Your task to perform on an android device: check android version Image 0: 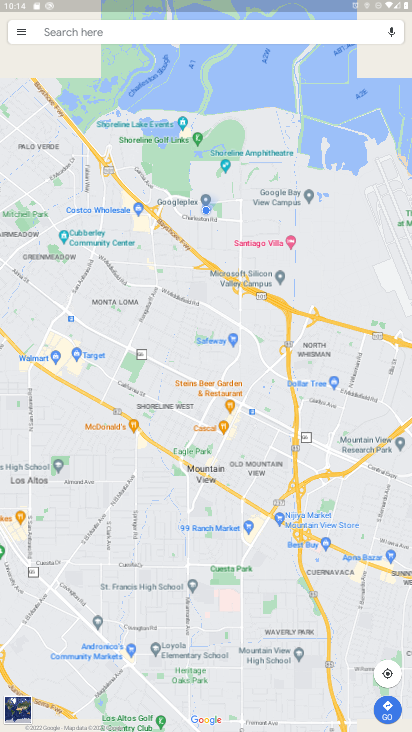
Step 0: press home button
Your task to perform on an android device: check android version Image 1: 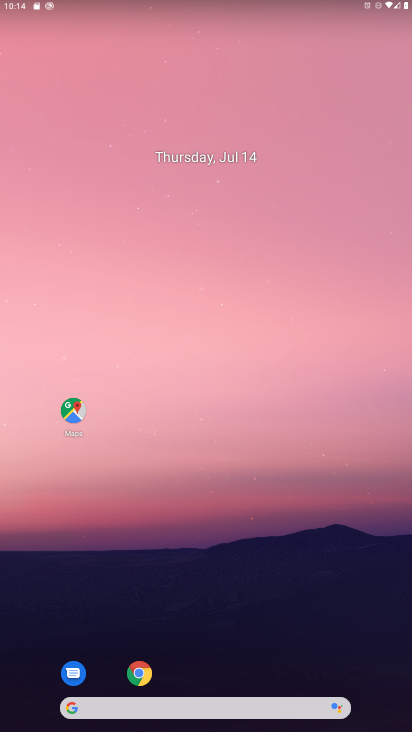
Step 1: drag from (239, 713) to (277, 249)
Your task to perform on an android device: check android version Image 2: 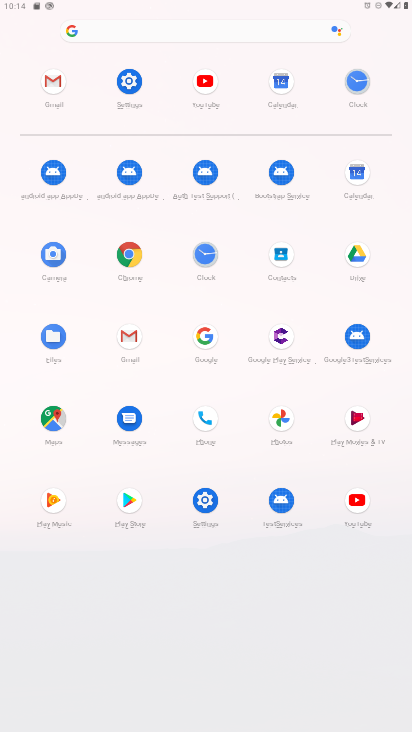
Step 2: click (206, 499)
Your task to perform on an android device: check android version Image 3: 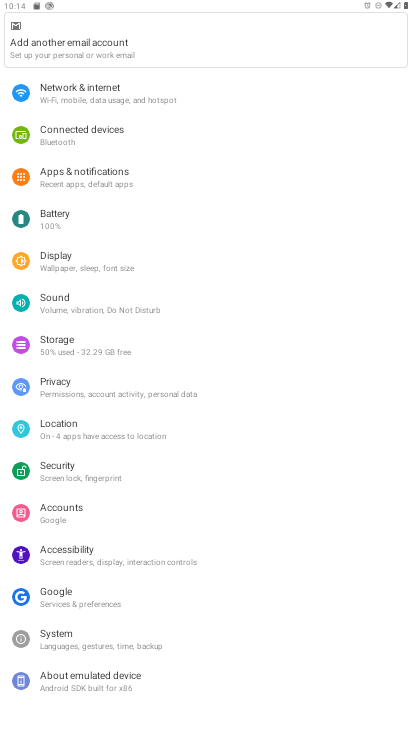
Step 3: drag from (79, 613) to (138, 506)
Your task to perform on an android device: check android version Image 4: 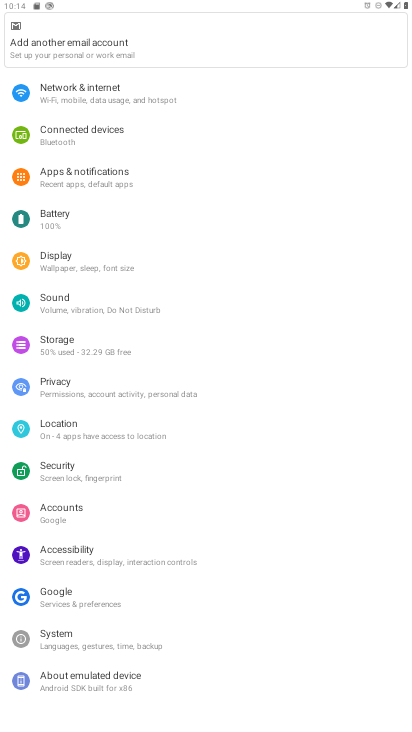
Step 4: click (94, 686)
Your task to perform on an android device: check android version Image 5: 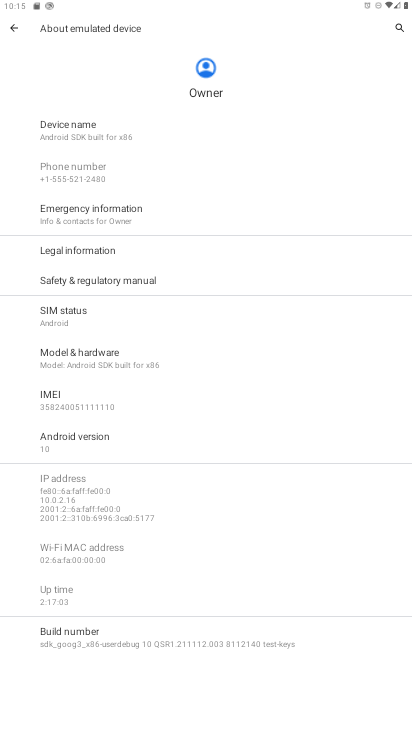
Step 5: click (92, 436)
Your task to perform on an android device: check android version Image 6: 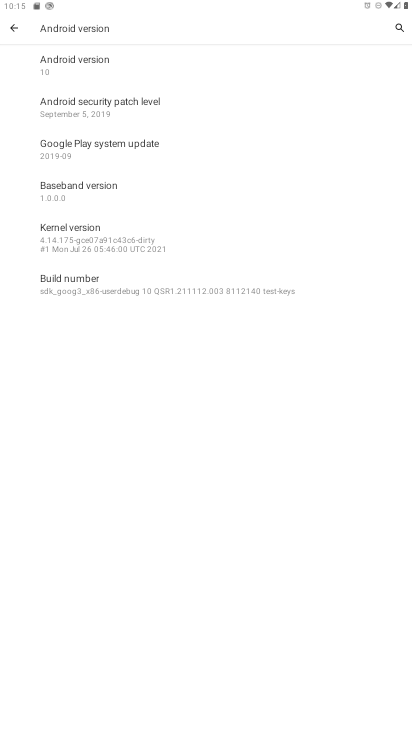
Step 6: task complete